Your task to perform on an android device: remove spam from my inbox in the gmail app Image 0: 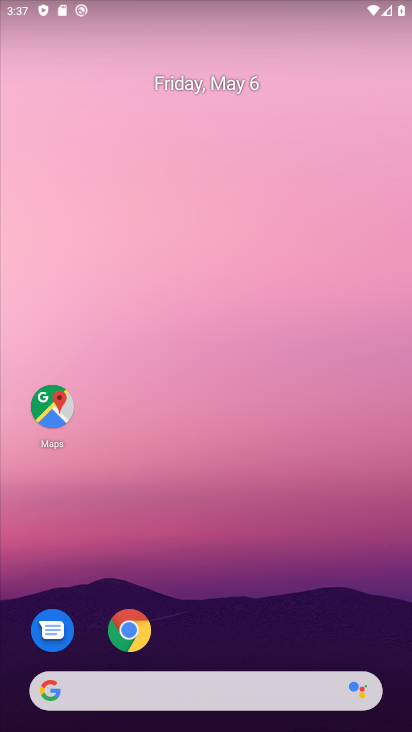
Step 0: drag from (227, 598) to (326, 88)
Your task to perform on an android device: remove spam from my inbox in the gmail app Image 1: 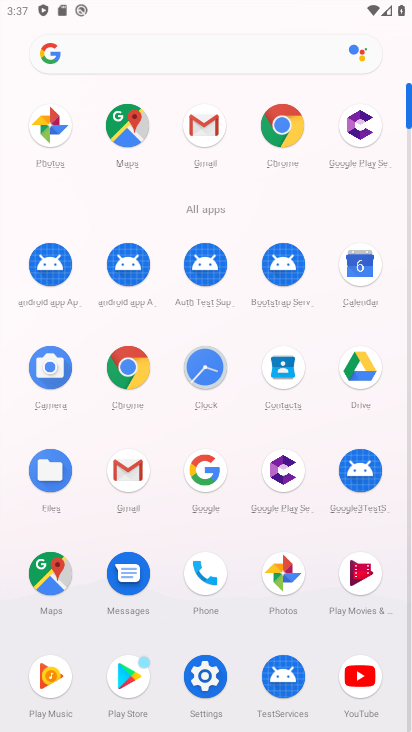
Step 1: click (193, 118)
Your task to perform on an android device: remove spam from my inbox in the gmail app Image 2: 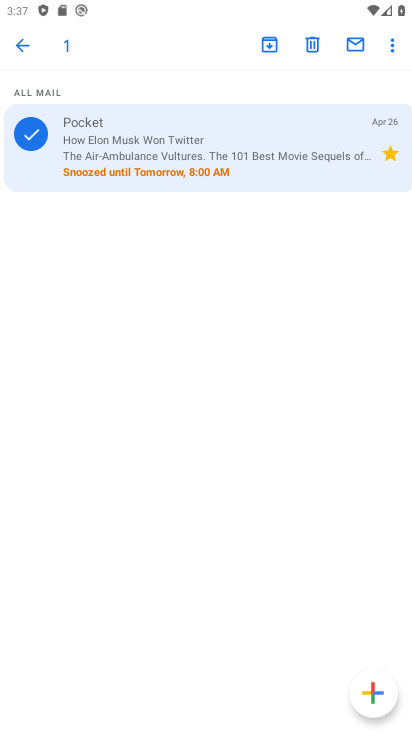
Step 2: click (31, 38)
Your task to perform on an android device: remove spam from my inbox in the gmail app Image 3: 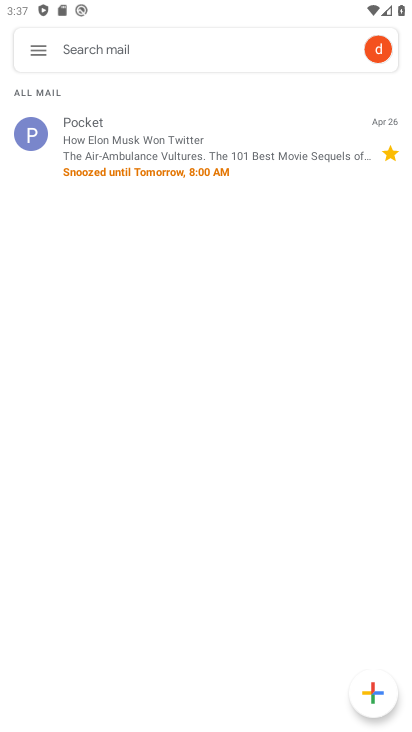
Step 3: click (28, 38)
Your task to perform on an android device: remove spam from my inbox in the gmail app Image 4: 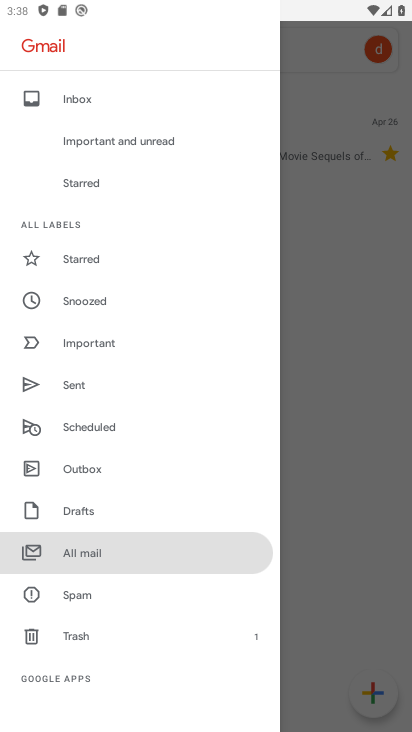
Step 4: click (82, 596)
Your task to perform on an android device: remove spam from my inbox in the gmail app Image 5: 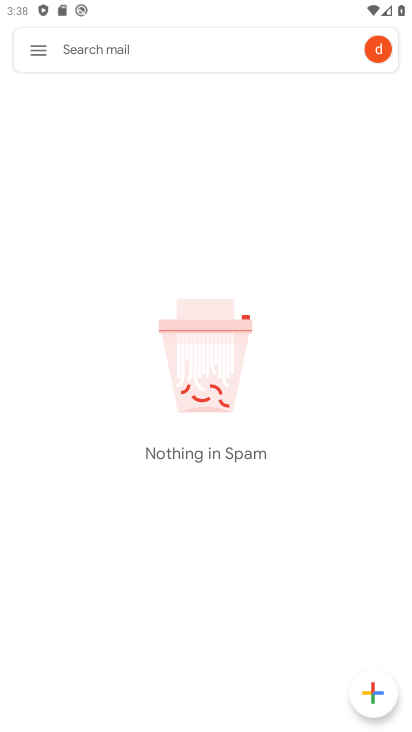
Step 5: task complete